Your task to perform on an android device: empty trash in the gmail app Image 0: 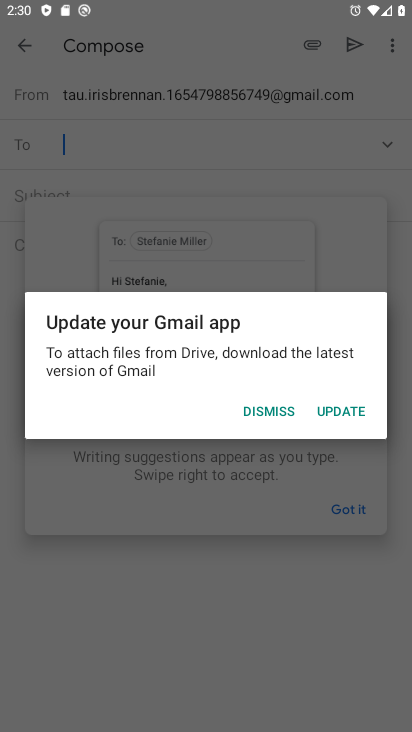
Step 0: press home button
Your task to perform on an android device: empty trash in the gmail app Image 1: 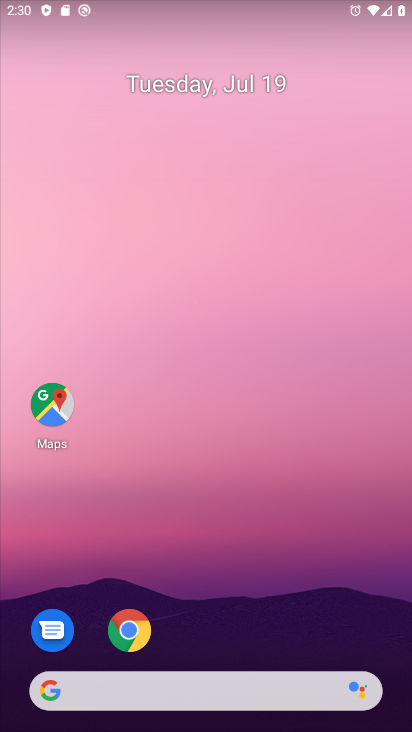
Step 1: drag from (259, 589) to (303, 48)
Your task to perform on an android device: empty trash in the gmail app Image 2: 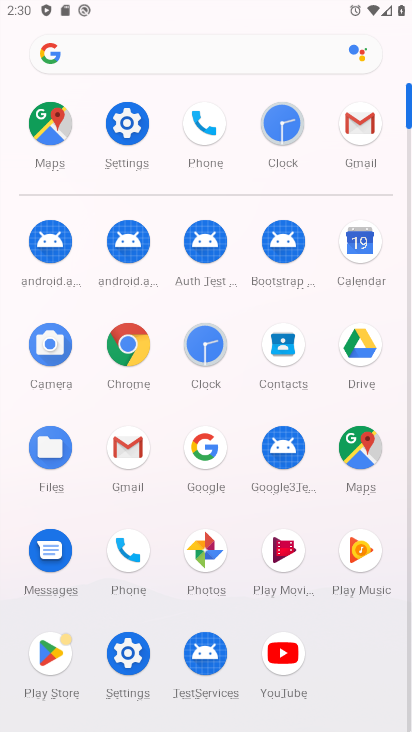
Step 2: click (347, 127)
Your task to perform on an android device: empty trash in the gmail app Image 3: 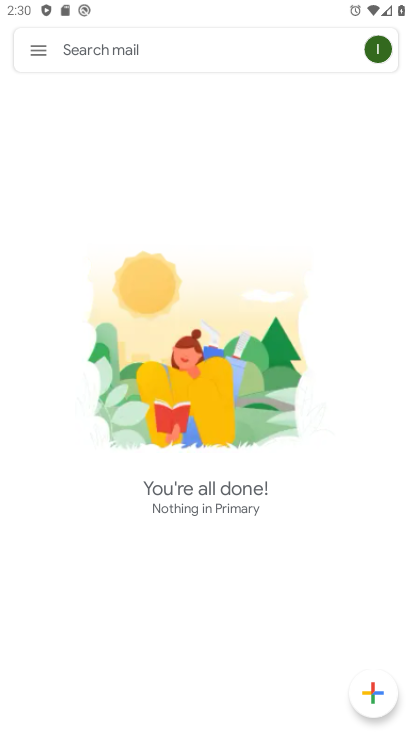
Step 3: click (37, 52)
Your task to perform on an android device: empty trash in the gmail app Image 4: 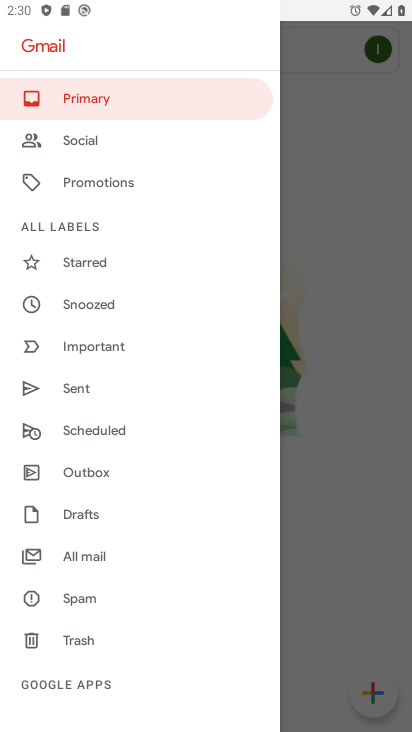
Step 4: click (85, 641)
Your task to perform on an android device: empty trash in the gmail app Image 5: 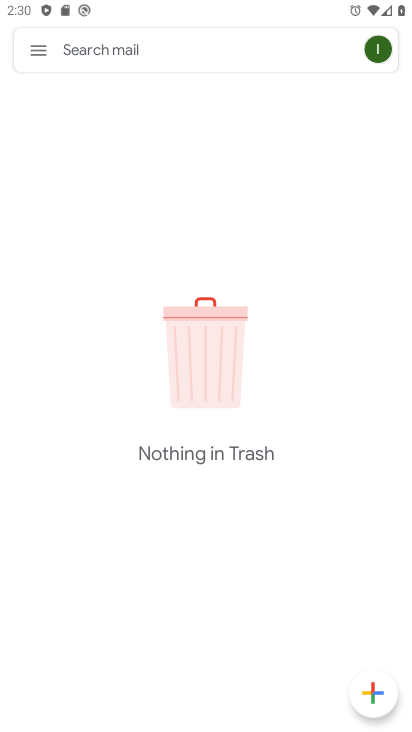
Step 5: task complete